Your task to perform on an android device: Set the phone to "Do not disturb". Image 0: 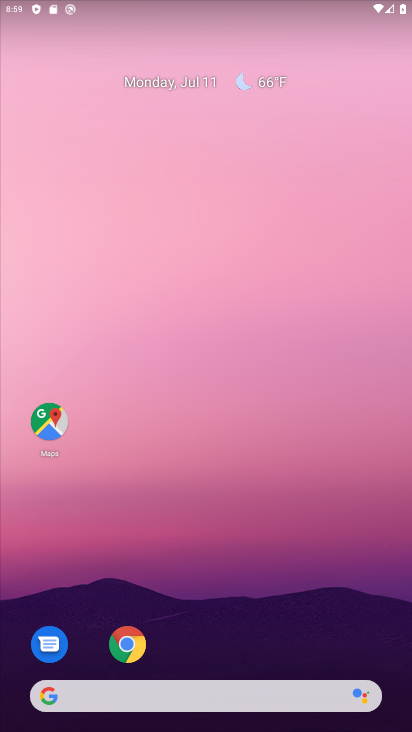
Step 0: drag from (224, 3) to (340, 507)
Your task to perform on an android device: Set the phone to "Do not disturb". Image 1: 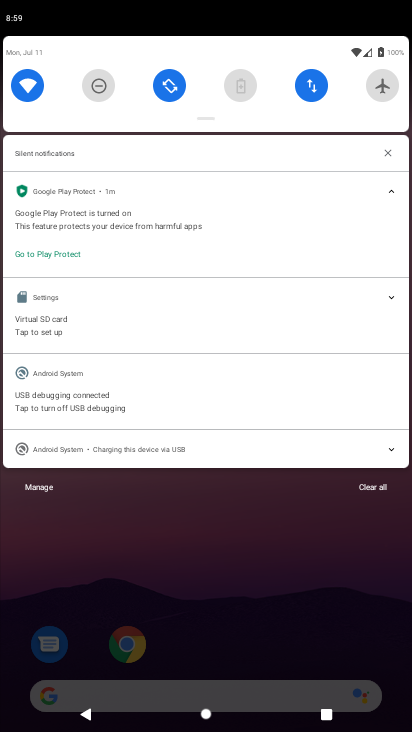
Step 1: click (105, 86)
Your task to perform on an android device: Set the phone to "Do not disturb". Image 2: 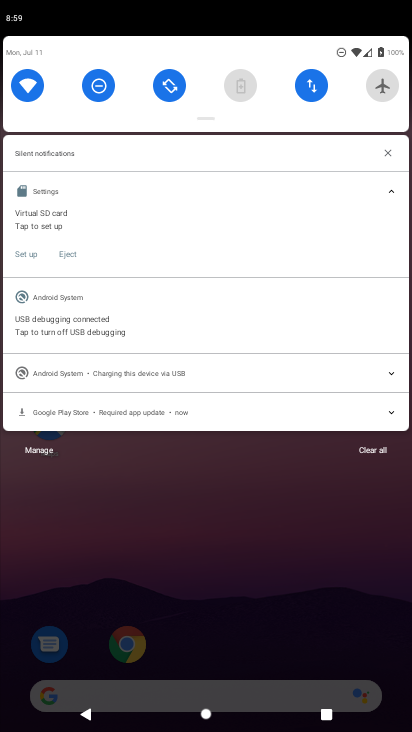
Step 2: task complete